Your task to perform on an android device: Open Maps and search for coffee Image 0: 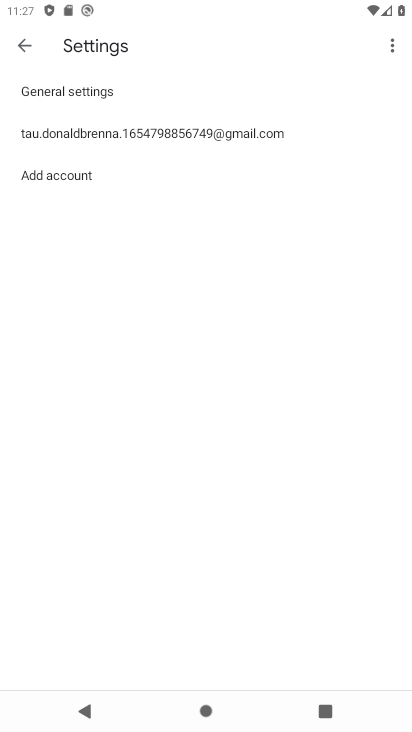
Step 0: press home button
Your task to perform on an android device: Open Maps and search for coffee Image 1: 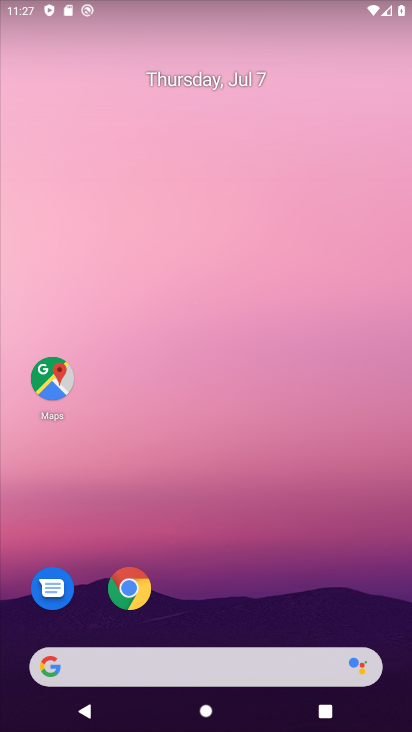
Step 1: click (52, 405)
Your task to perform on an android device: Open Maps and search for coffee Image 2: 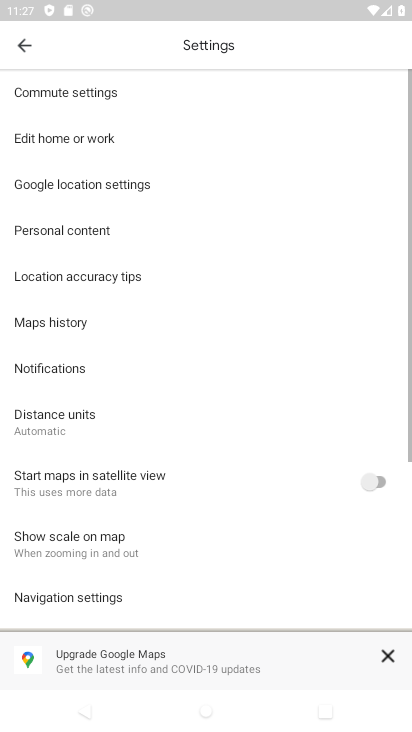
Step 2: click (29, 43)
Your task to perform on an android device: Open Maps and search for coffee Image 3: 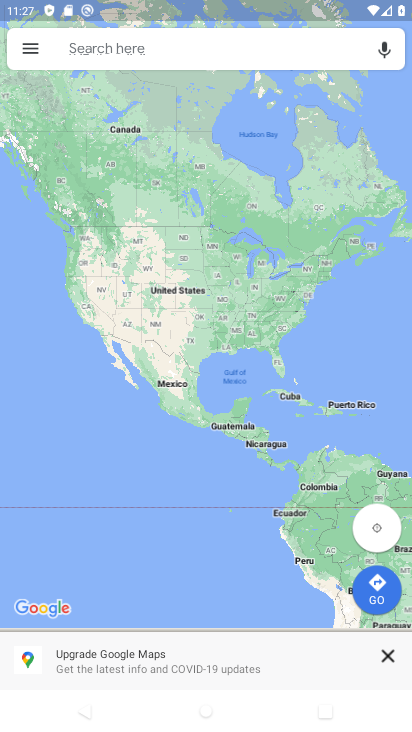
Step 3: click (123, 47)
Your task to perform on an android device: Open Maps and search for coffee Image 4: 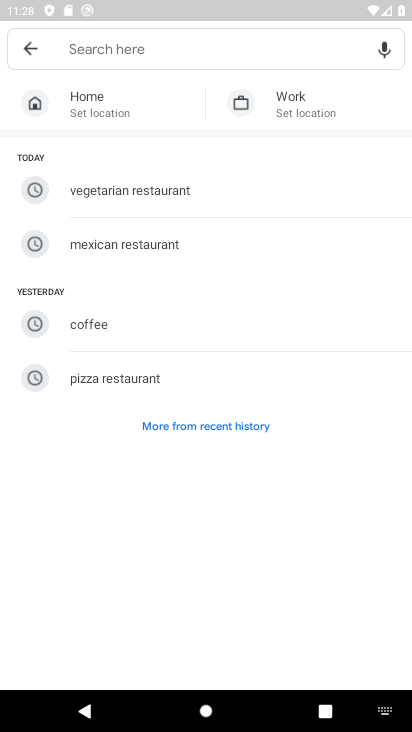
Step 4: type "coffee"
Your task to perform on an android device: Open Maps and search for coffee Image 5: 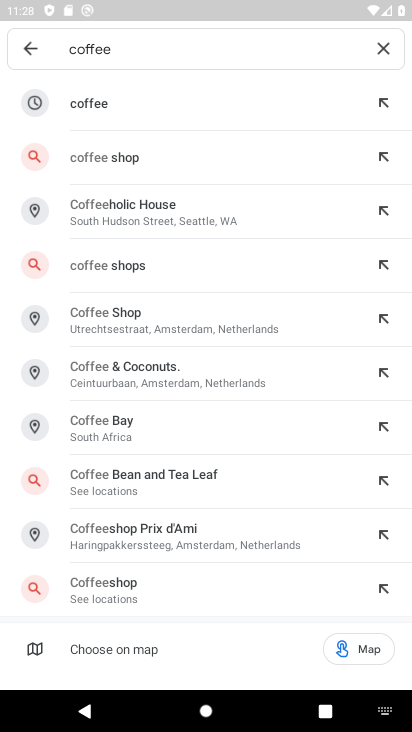
Step 5: click (157, 94)
Your task to perform on an android device: Open Maps and search for coffee Image 6: 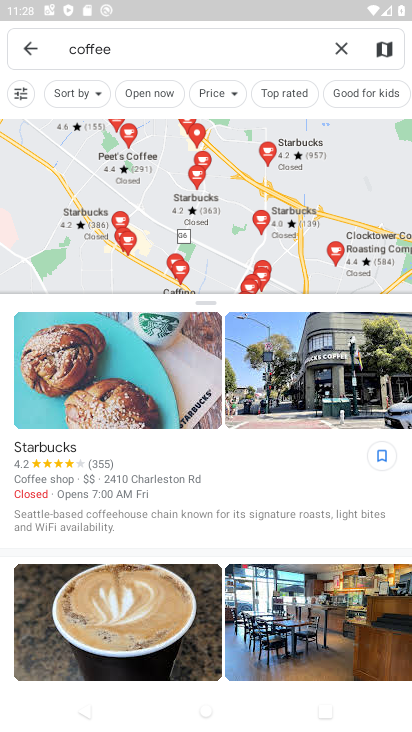
Step 6: task complete